Your task to perform on an android device: turn on the 24-hour format for clock Image 0: 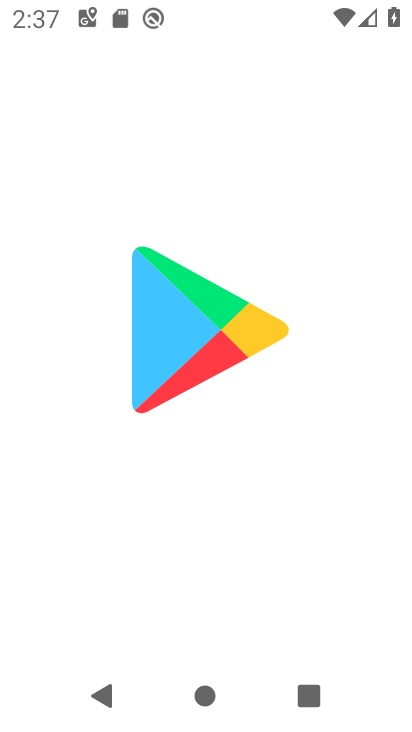
Step 0: press home button
Your task to perform on an android device: turn on the 24-hour format for clock Image 1: 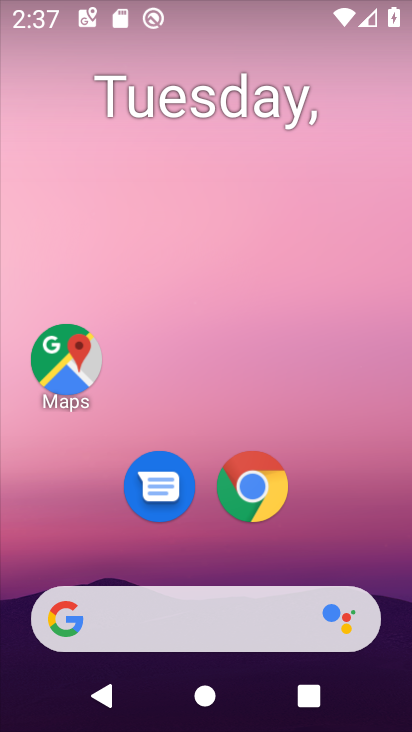
Step 1: drag from (211, 559) to (202, 70)
Your task to perform on an android device: turn on the 24-hour format for clock Image 2: 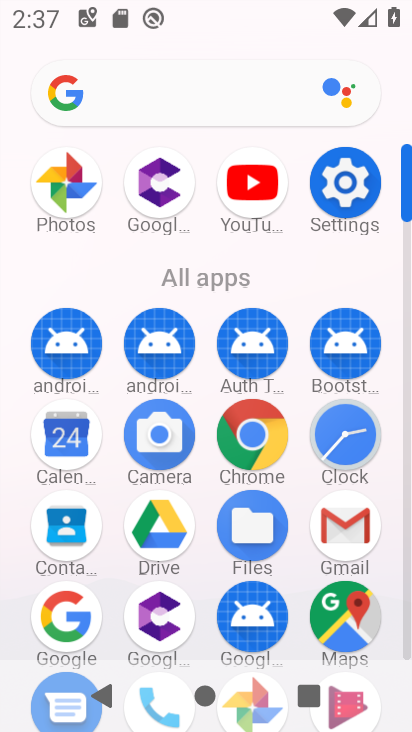
Step 2: click (345, 428)
Your task to perform on an android device: turn on the 24-hour format for clock Image 3: 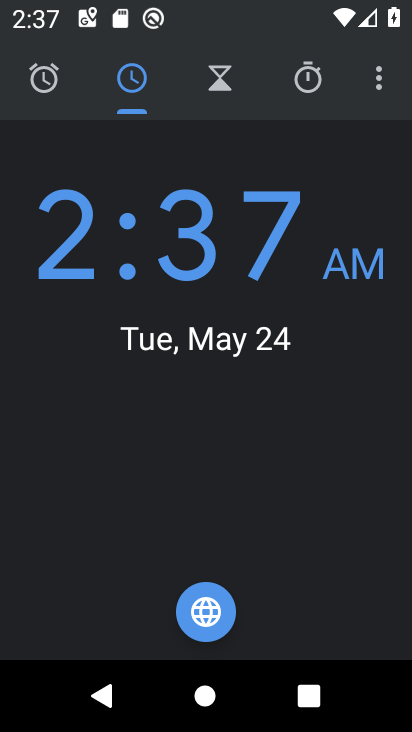
Step 3: click (378, 74)
Your task to perform on an android device: turn on the 24-hour format for clock Image 4: 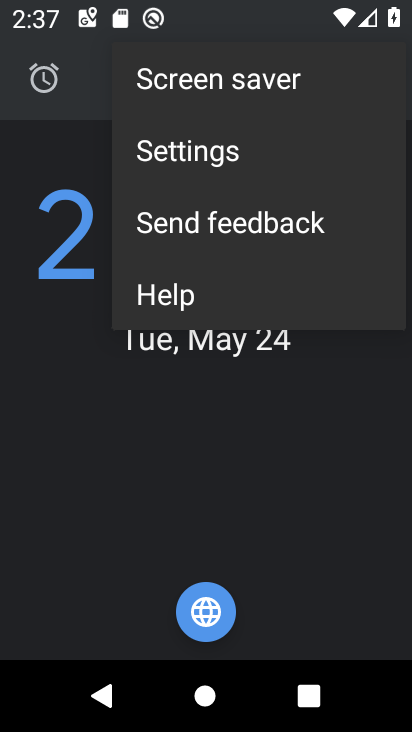
Step 4: click (260, 149)
Your task to perform on an android device: turn on the 24-hour format for clock Image 5: 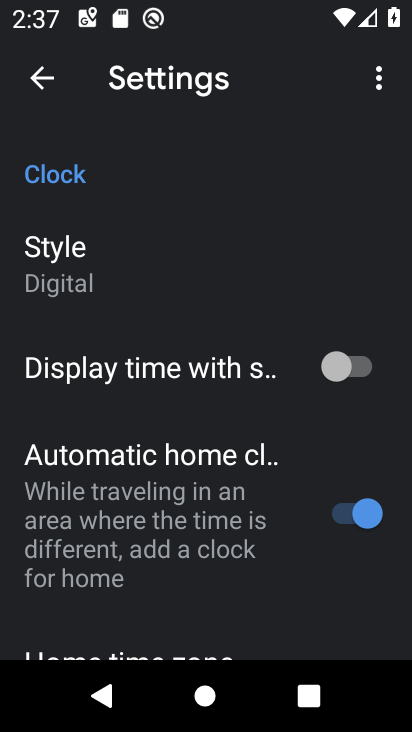
Step 5: drag from (272, 584) to (281, 249)
Your task to perform on an android device: turn on the 24-hour format for clock Image 6: 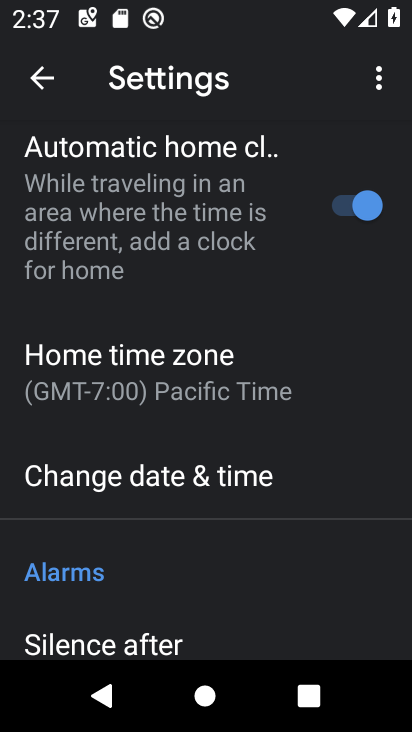
Step 6: click (287, 481)
Your task to perform on an android device: turn on the 24-hour format for clock Image 7: 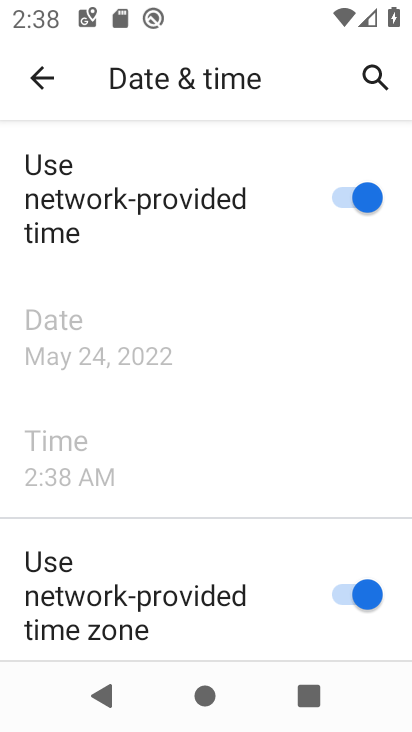
Step 7: drag from (287, 616) to (294, 137)
Your task to perform on an android device: turn on the 24-hour format for clock Image 8: 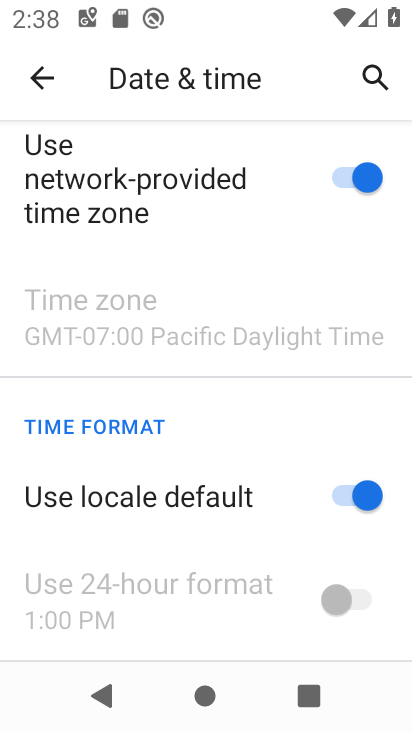
Step 8: click (347, 487)
Your task to perform on an android device: turn on the 24-hour format for clock Image 9: 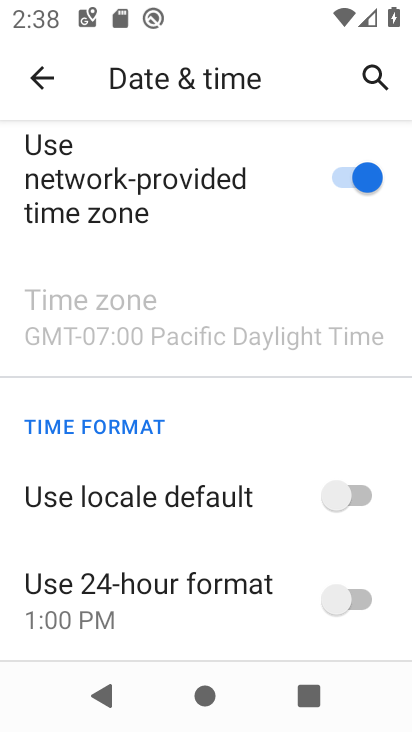
Step 9: click (359, 599)
Your task to perform on an android device: turn on the 24-hour format for clock Image 10: 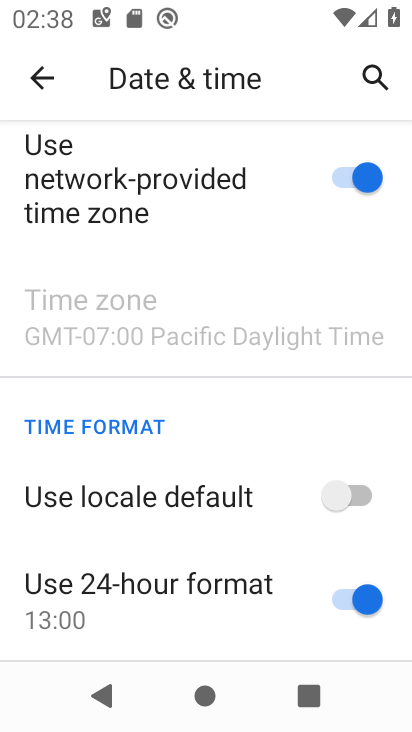
Step 10: task complete